Your task to perform on an android device: Search for sushi restaurants on Maps Image 0: 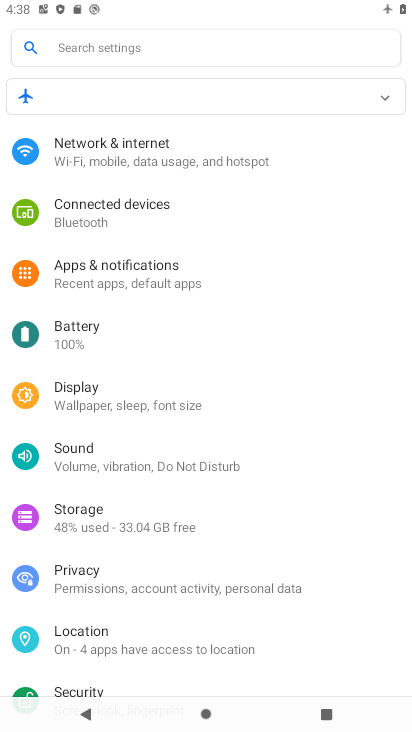
Step 0: press home button
Your task to perform on an android device: Search for sushi restaurants on Maps Image 1: 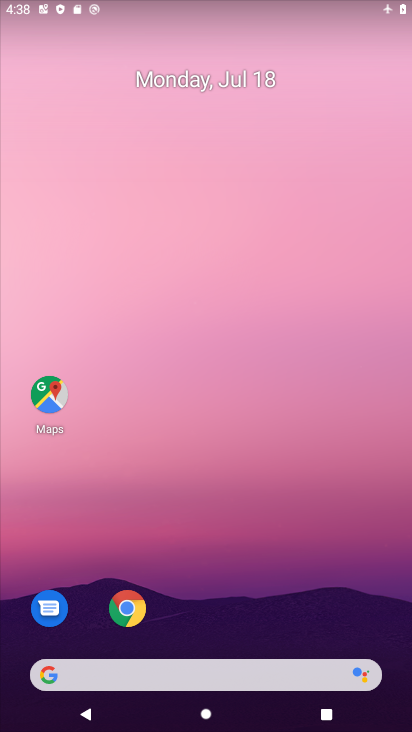
Step 1: drag from (238, 573) to (306, 7)
Your task to perform on an android device: Search for sushi restaurants on Maps Image 2: 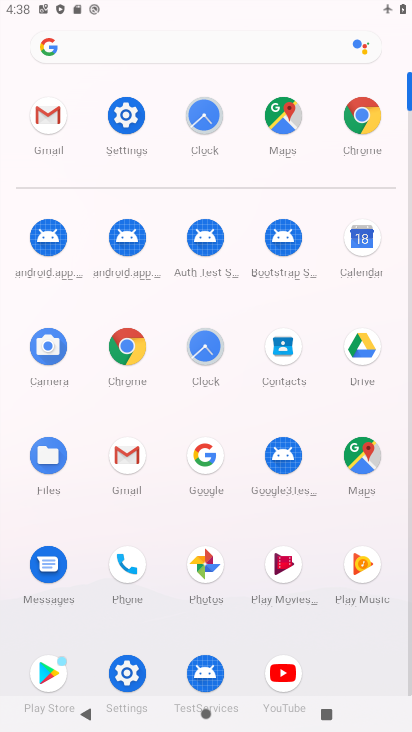
Step 2: click (362, 458)
Your task to perform on an android device: Search for sushi restaurants on Maps Image 3: 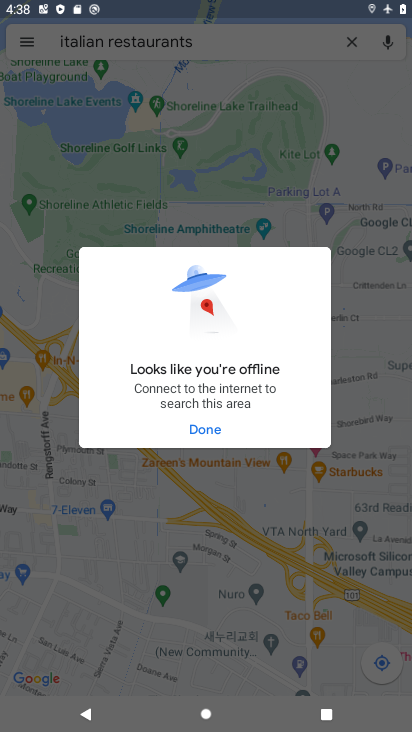
Step 3: click (212, 426)
Your task to perform on an android device: Search for sushi restaurants on Maps Image 4: 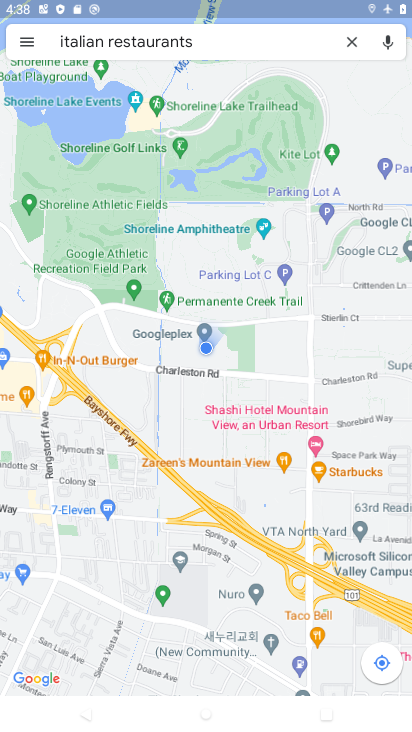
Step 4: click (195, 37)
Your task to perform on an android device: Search for sushi restaurants on Maps Image 5: 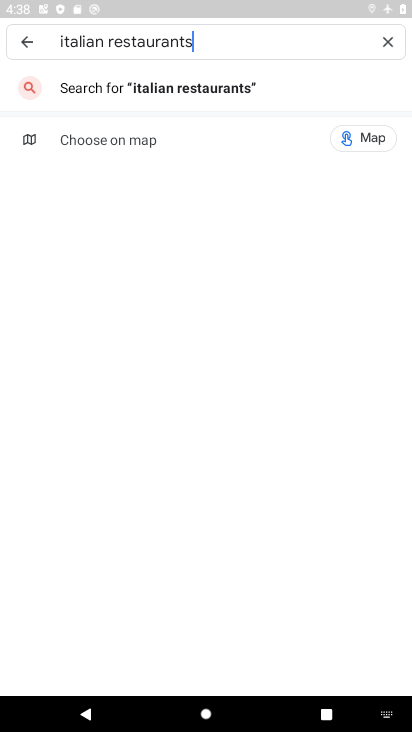
Step 5: click (386, 39)
Your task to perform on an android device: Search for sushi restaurants on Maps Image 6: 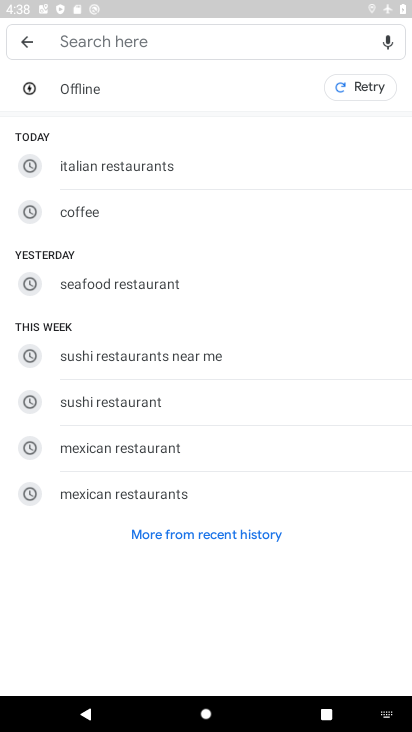
Step 6: click (143, 400)
Your task to perform on an android device: Search for sushi restaurants on Maps Image 7: 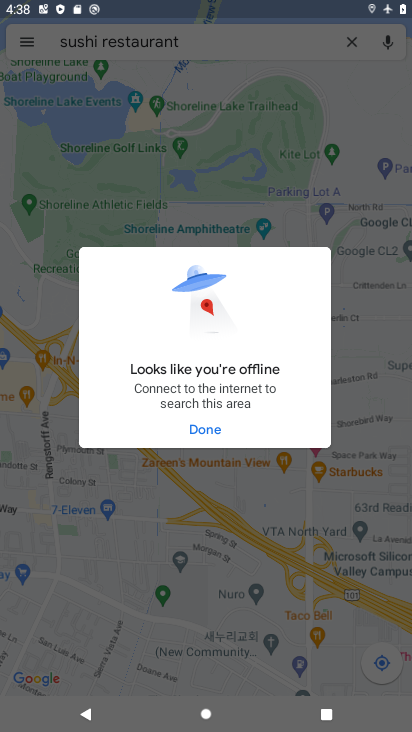
Step 7: task complete